Your task to perform on an android device: stop showing notifications on the lock screen Image 0: 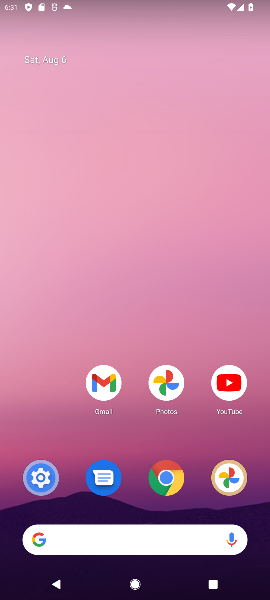
Step 0: press home button
Your task to perform on an android device: stop showing notifications on the lock screen Image 1: 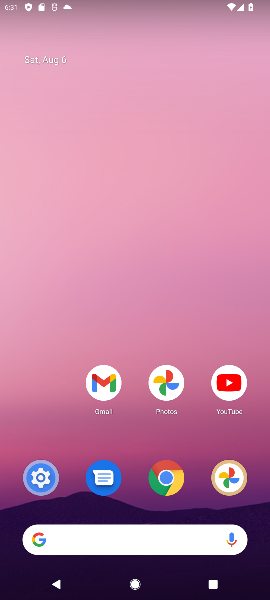
Step 1: drag from (129, 362) to (225, 14)
Your task to perform on an android device: stop showing notifications on the lock screen Image 2: 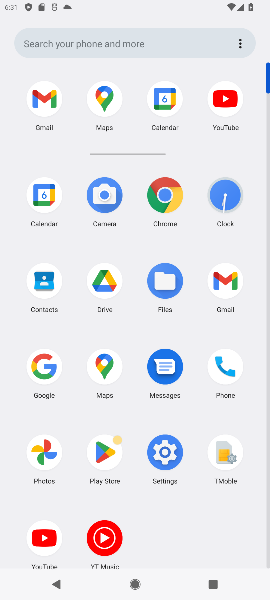
Step 2: click (98, 196)
Your task to perform on an android device: stop showing notifications on the lock screen Image 3: 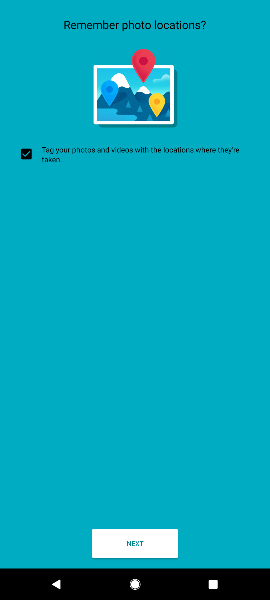
Step 3: press home button
Your task to perform on an android device: stop showing notifications on the lock screen Image 4: 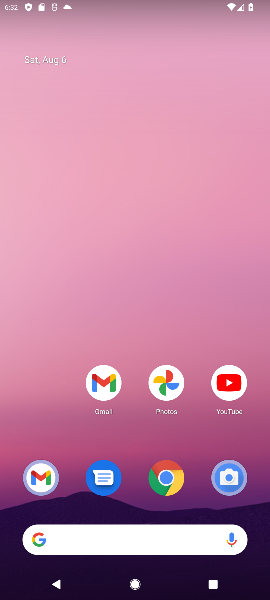
Step 4: drag from (185, 338) to (187, 7)
Your task to perform on an android device: stop showing notifications on the lock screen Image 5: 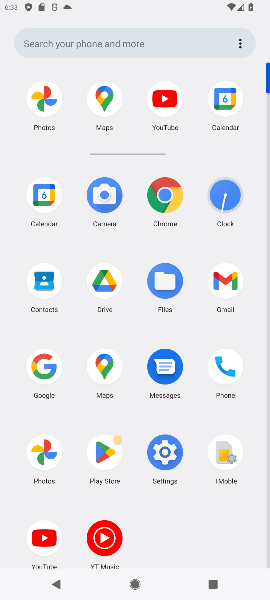
Step 5: click (158, 444)
Your task to perform on an android device: stop showing notifications on the lock screen Image 6: 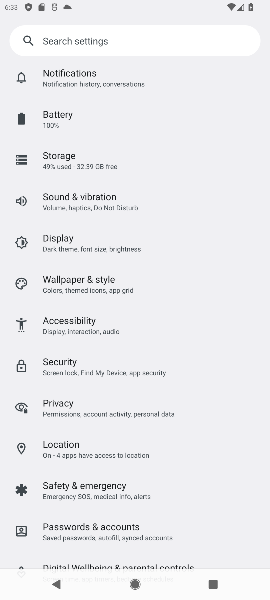
Step 6: click (96, 75)
Your task to perform on an android device: stop showing notifications on the lock screen Image 7: 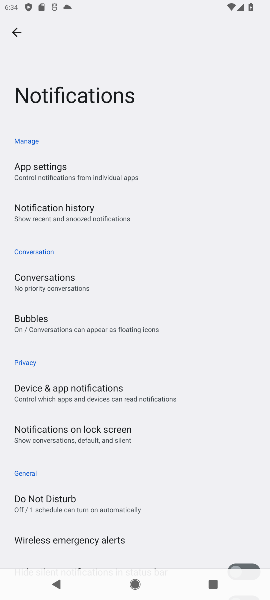
Step 7: click (109, 427)
Your task to perform on an android device: stop showing notifications on the lock screen Image 8: 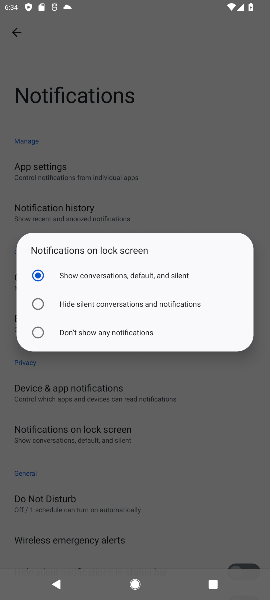
Step 8: click (81, 332)
Your task to perform on an android device: stop showing notifications on the lock screen Image 9: 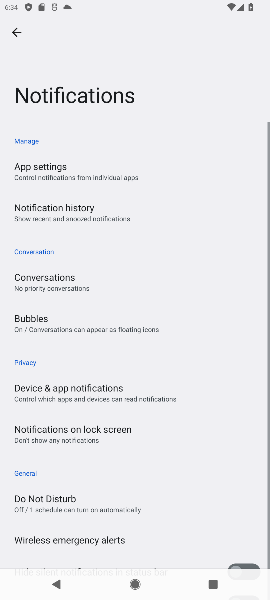
Step 9: task complete